Your task to perform on an android device: Go to wifi settings Image 0: 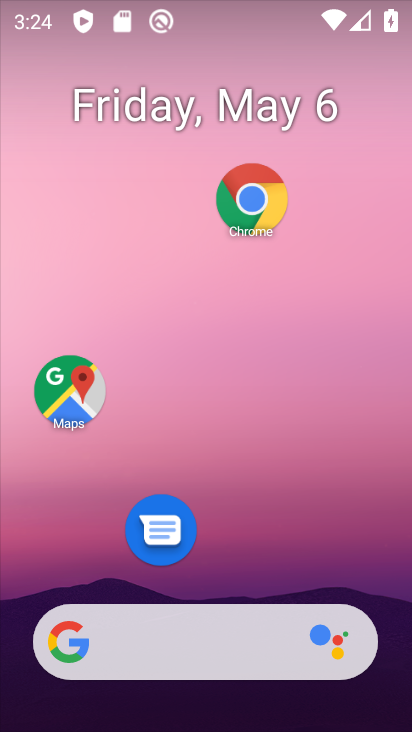
Step 0: drag from (258, 568) to (256, 107)
Your task to perform on an android device: Go to wifi settings Image 1: 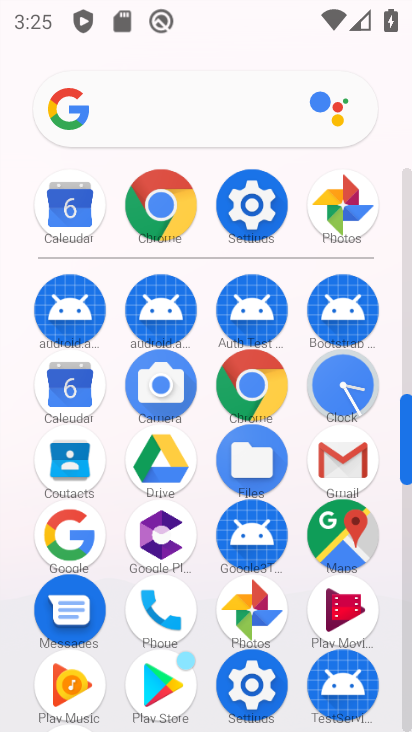
Step 1: click (266, 223)
Your task to perform on an android device: Go to wifi settings Image 2: 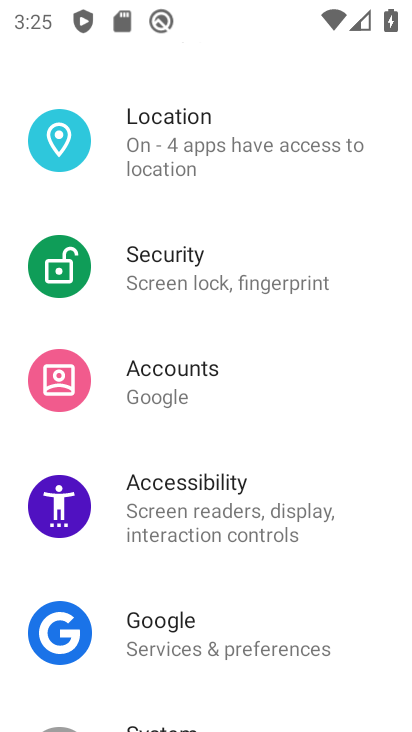
Step 2: drag from (266, 225) to (107, 729)
Your task to perform on an android device: Go to wifi settings Image 3: 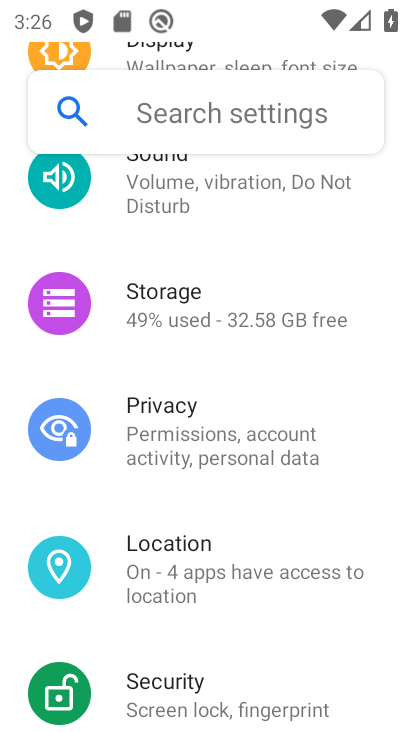
Step 3: drag from (269, 274) to (189, 698)
Your task to perform on an android device: Go to wifi settings Image 4: 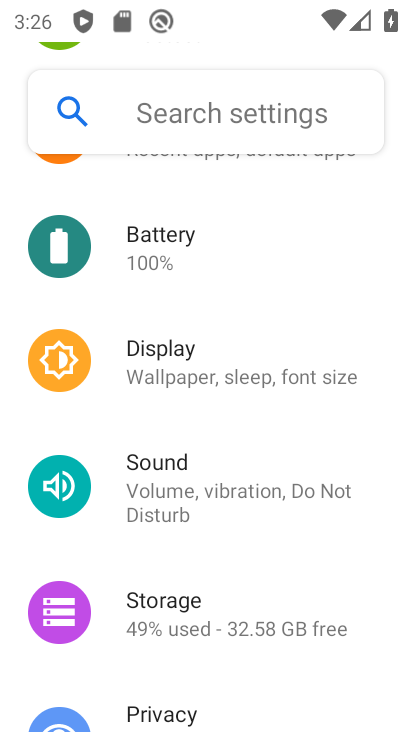
Step 4: drag from (238, 313) to (215, 582)
Your task to perform on an android device: Go to wifi settings Image 5: 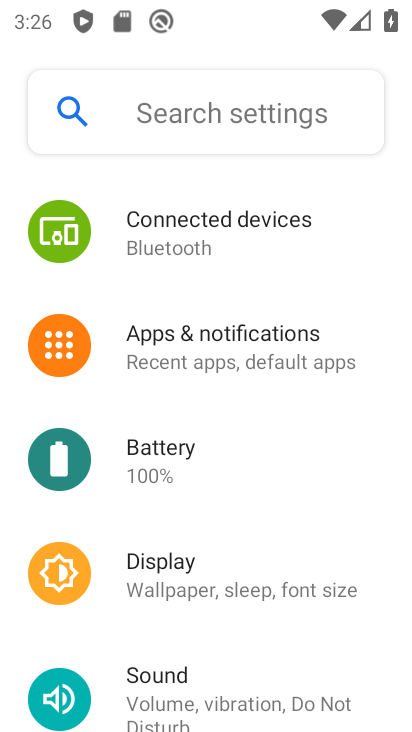
Step 5: drag from (200, 265) to (137, 627)
Your task to perform on an android device: Go to wifi settings Image 6: 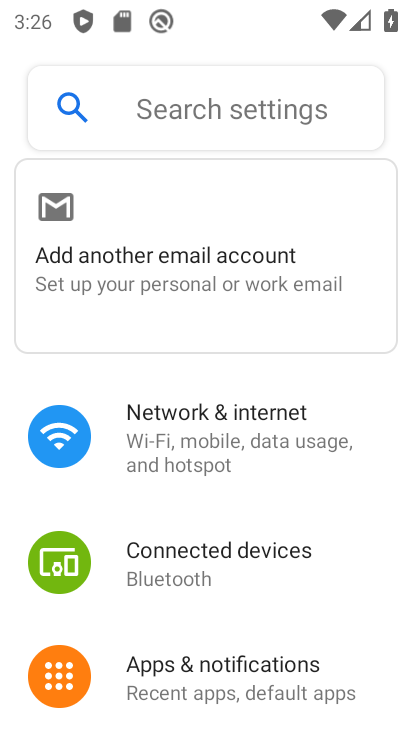
Step 6: click (178, 460)
Your task to perform on an android device: Go to wifi settings Image 7: 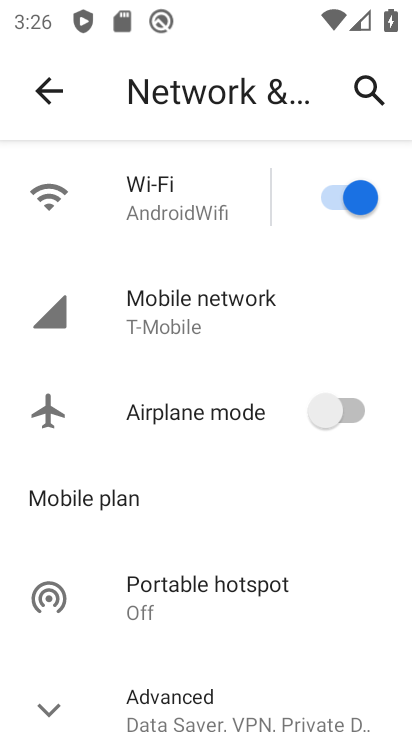
Step 7: click (194, 217)
Your task to perform on an android device: Go to wifi settings Image 8: 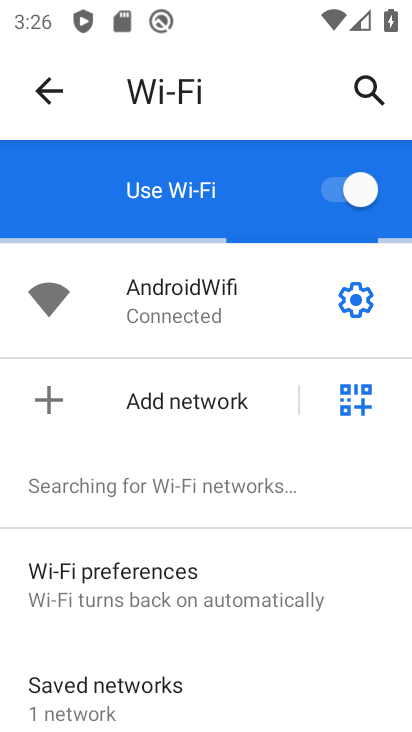
Step 8: task complete